Your task to perform on an android device: Search for pizza restaurants on Maps Image 0: 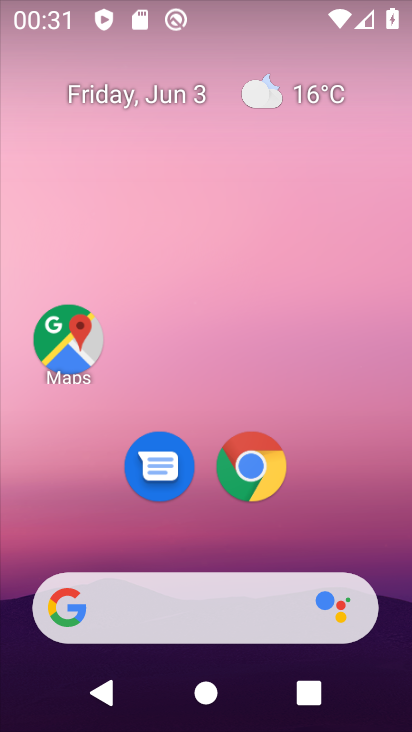
Step 0: click (93, 343)
Your task to perform on an android device: Search for pizza restaurants on Maps Image 1: 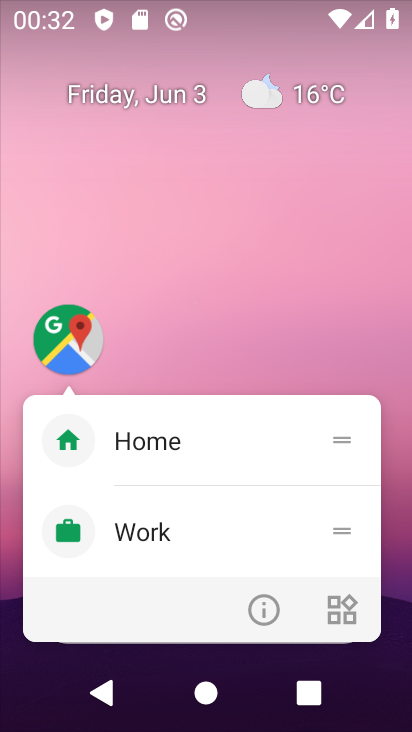
Step 1: click (50, 321)
Your task to perform on an android device: Search for pizza restaurants on Maps Image 2: 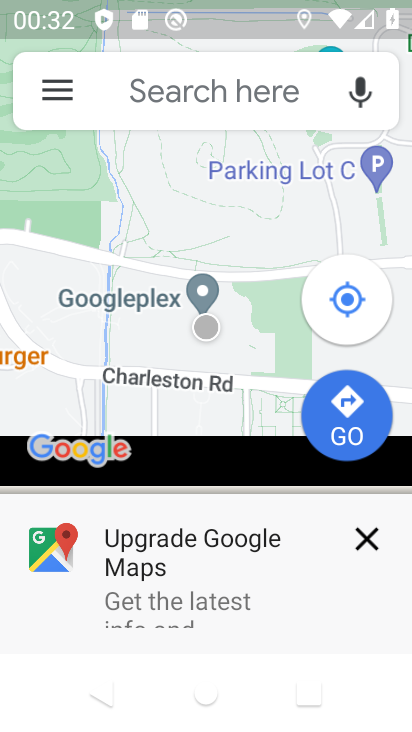
Step 2: click (243, 88)
Your task to perform on an android device: Search for pizza restaurants on Maps Image 3: 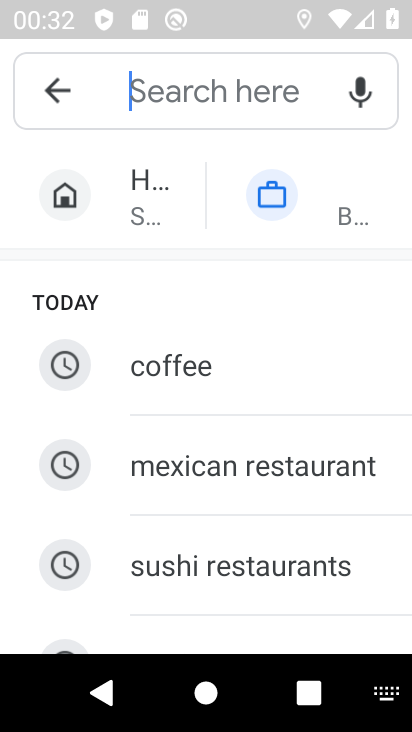
Step 3: type "Pizza restaurants "
Your task to perform on an android device: Search for pizza restaurants on Maps Image 4: 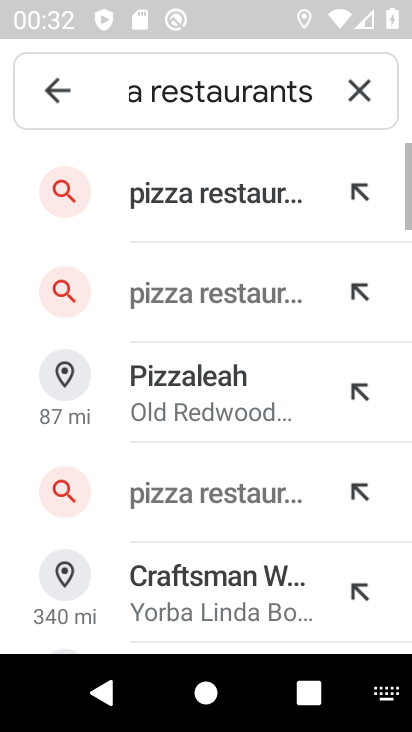
Step 4: click (246, 202)
Your task to perform on an android device: Search for pizza restaurants on Maps Image 5: 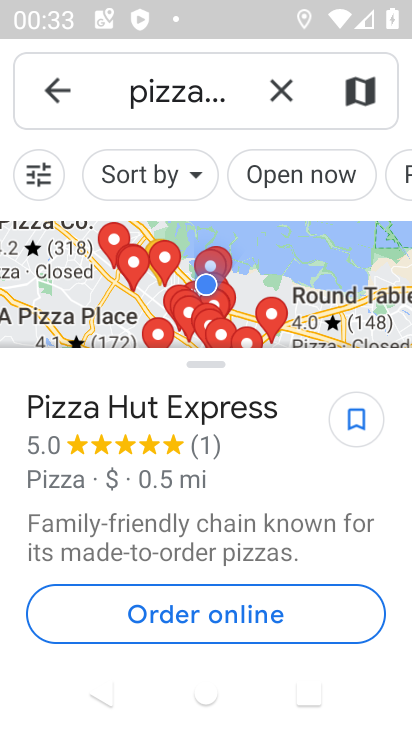
Step 5: task complete